Your task to perform on an android device: open app "Calculator" Image 0: 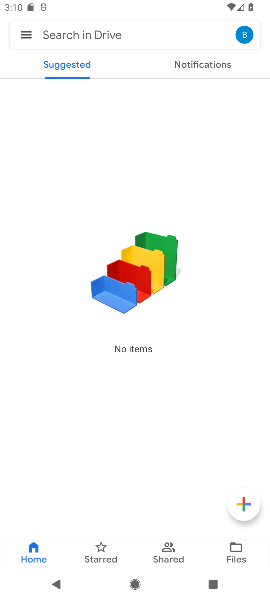
Step 0: press home button
Your task to perform on an android device: open app "Calculator" Image 1: 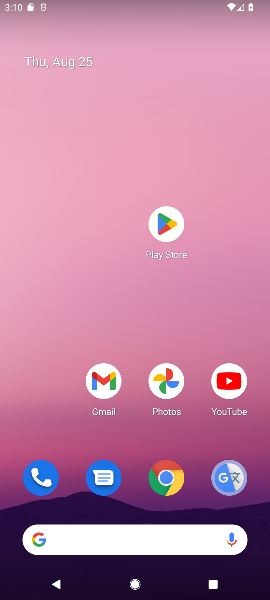
Step 1: click (163, 222)
Your task to perform on an android device: open app "Calculator" Image 2: 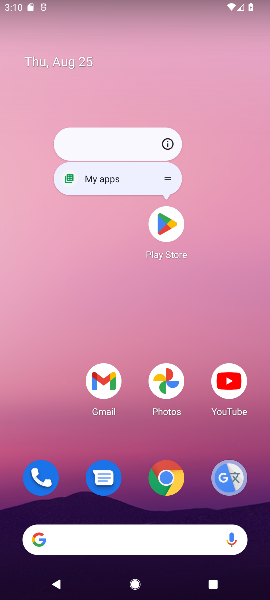
Step 2: click (167, 221)
Your task to perform on an android device: open app "Calculator" Image 3: 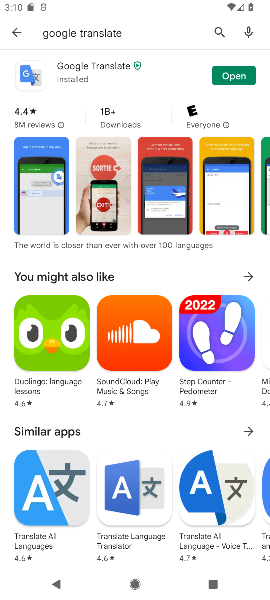
Step 3: click (217, 32)
Your task to perform on an android device: open app "Calculator" Image 4: 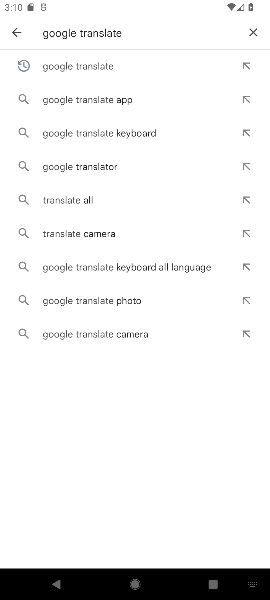
Step 4: click (252, 29)
Your task to perform on an android device: open app "Calculator" Image 5: 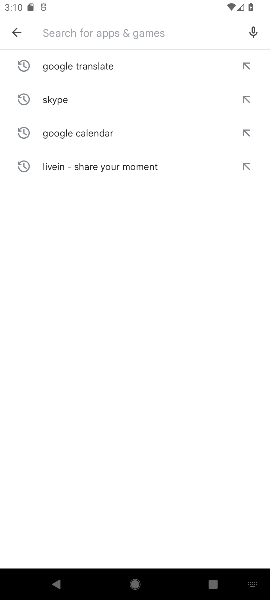
Step 5: type "Calculator"
Your task to perform on an android device: open app "Calculator" Image 6: 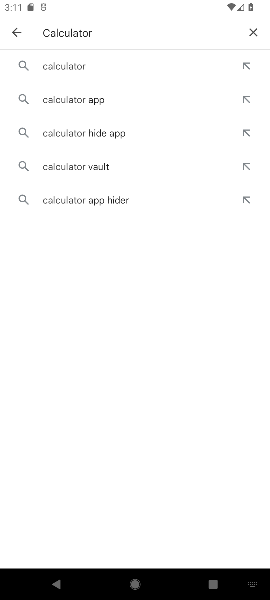
Step 6: click (77, 66)
Your task to perform on an android device: open app "Calculator" Image 7: 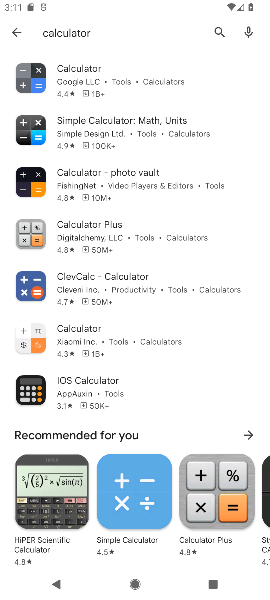
Step 7: click (76, 73)
Your task to perform on an android device: open app "Calculator" Image 8: 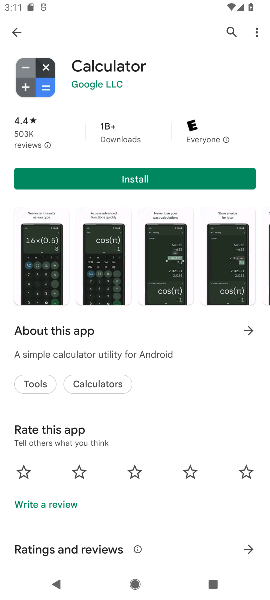
Step 8: task complete